Your task to perform on an android device: Search for sushi restaurants on Maps Image 0: 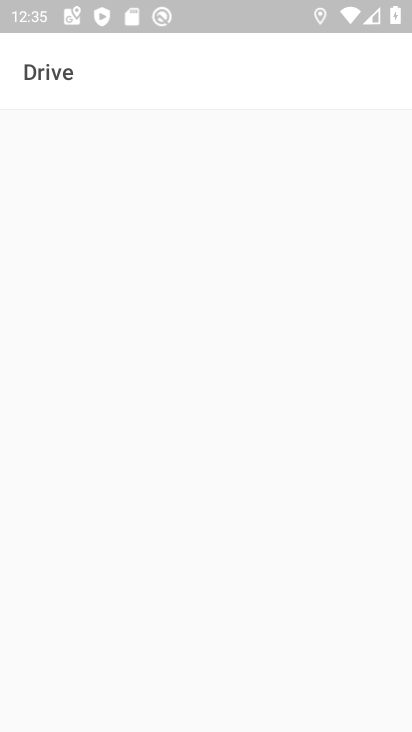
Step 0: drag from (60, 438) to (191, 256)
Your task to perform on an android device: Search for sushi restaurants on Maps Image 1: 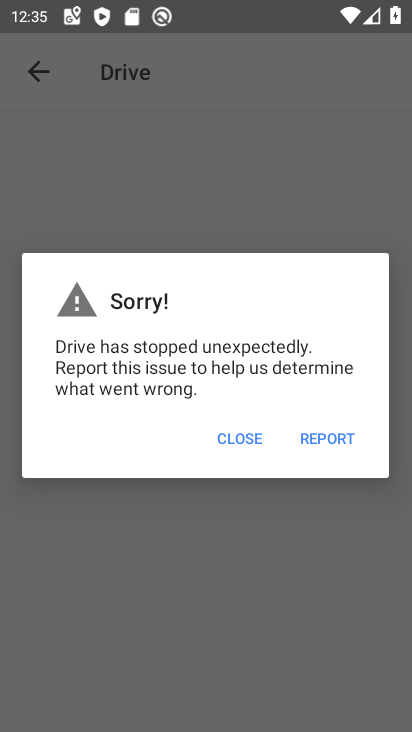
Step 1: press home button
Your task to perform on an android device: Search for sushi restaurants on Maps Image 2: 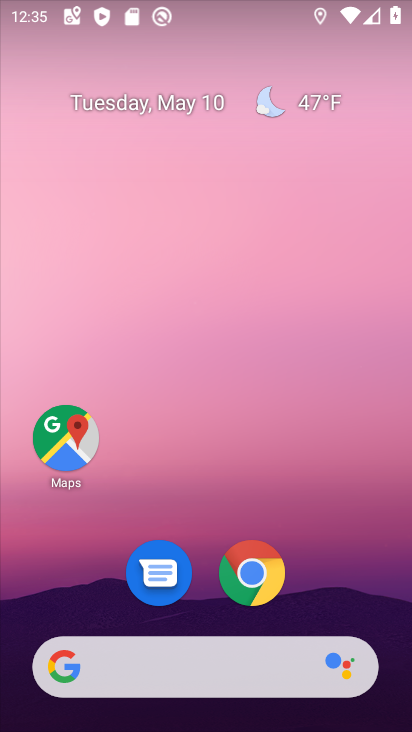
Step 2: drag from (236, 610) to (311, 343)
Your task to perform on an android device: Search for sushi restaurants on Maps Image 3: 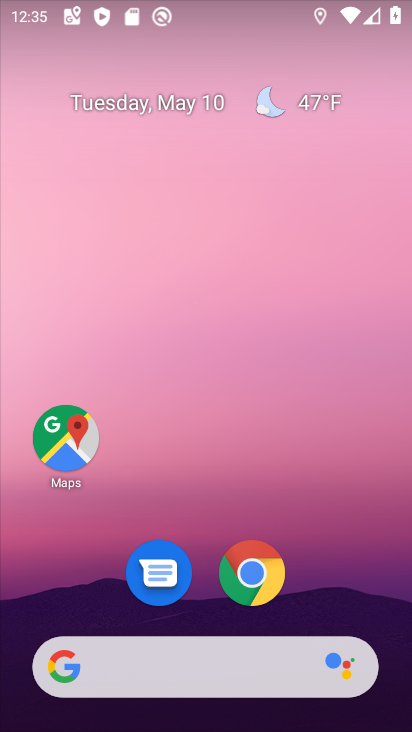
Step 3: drag from (214, 582) to (222, 182)
Your task to perform on an android device: Search for sushi restaurants on Maps Image 4: 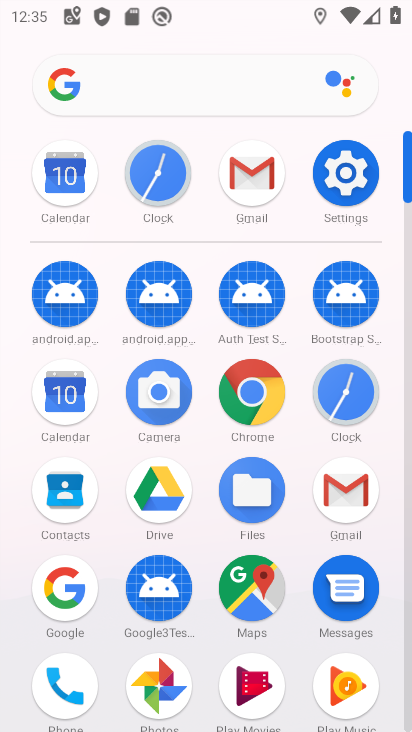
Step 4: click (254, 590)
Your task to perform on an android device: Search for sushi restaurants on Maps Image 5: 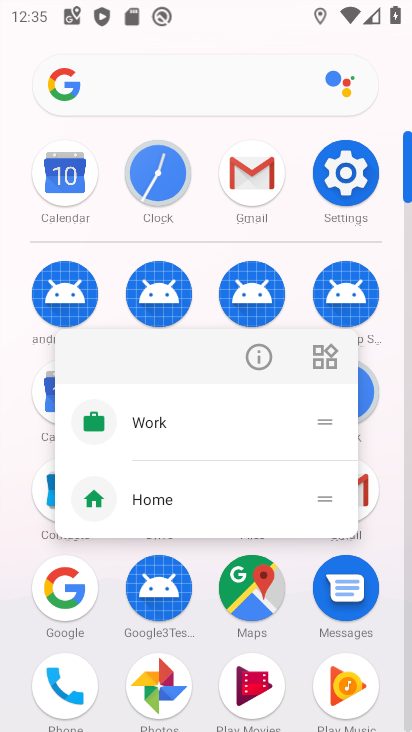
Step 5: click (264, 363)
Your task to perform on an android device: Search for sushi restaurants on Maps Image 6: 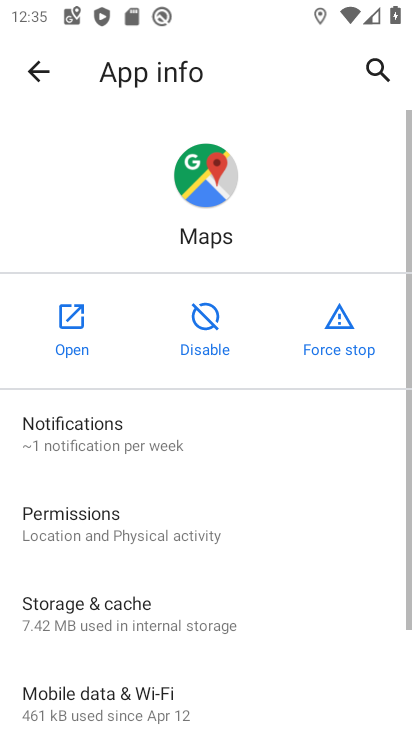
Step 6: click (74, 318)
Your task to perform on an android device: Search for sushi restaurants on Maps Image 7: 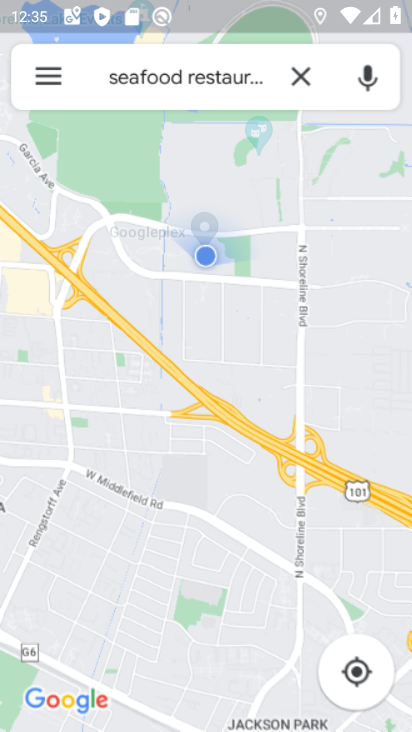
Step 7: click (290, 87)
Your task to perform on an android device: Search for sushi restaurants on Maps Image 8: 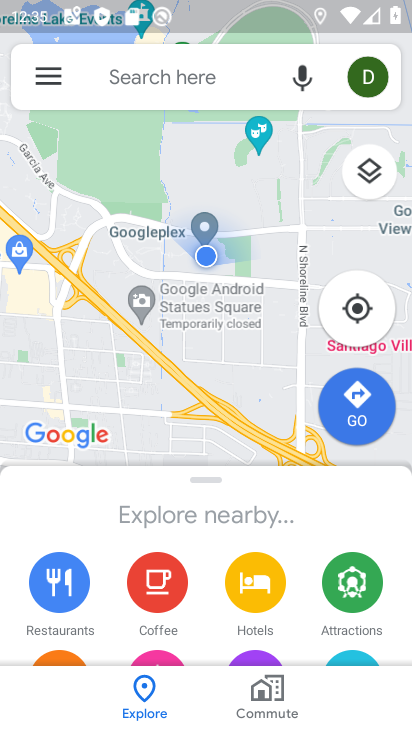
Step 8: click (204, 76)
Your task to perform on an android device: Search for sushi restaurants on Maps Image 9: 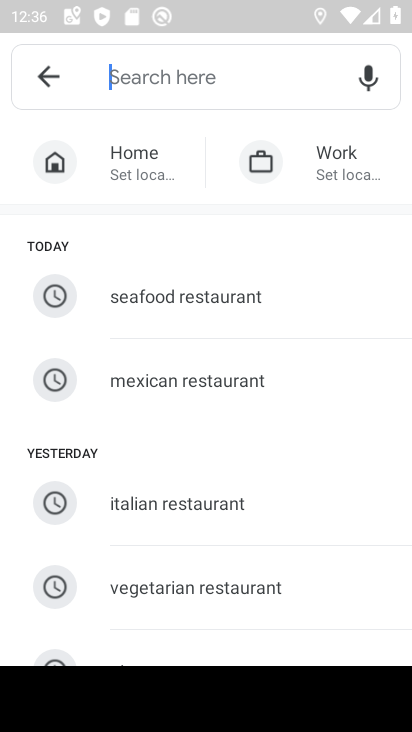
Step 9: drag from (222, 617) to (227, 213)
Your task to perform on an android device: Search for sushi restaurants on Maps Image 10: 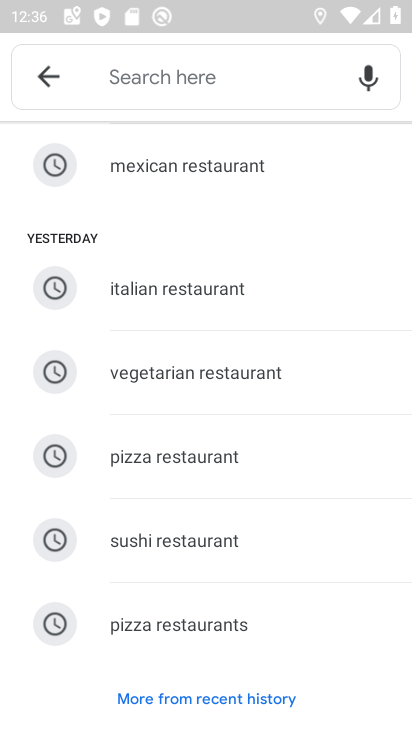
Step 10: click (189, 542)
Your task to perform on an android device: Search for sushi restaurants on Maps Image 11: 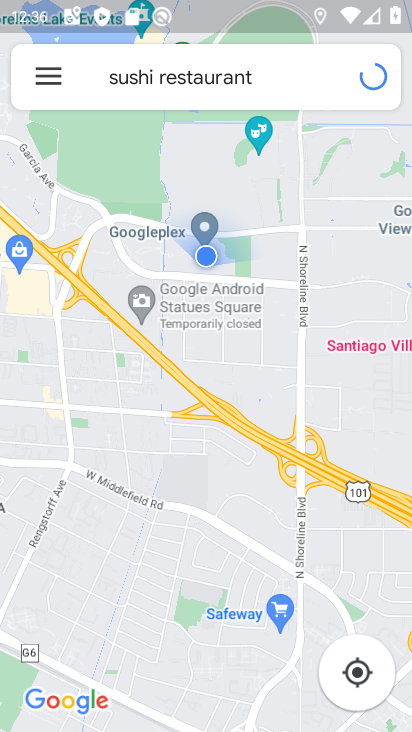
Step 11: task complete